Your task to perform on an android device: Show me the alarms in the clock app Image 0: 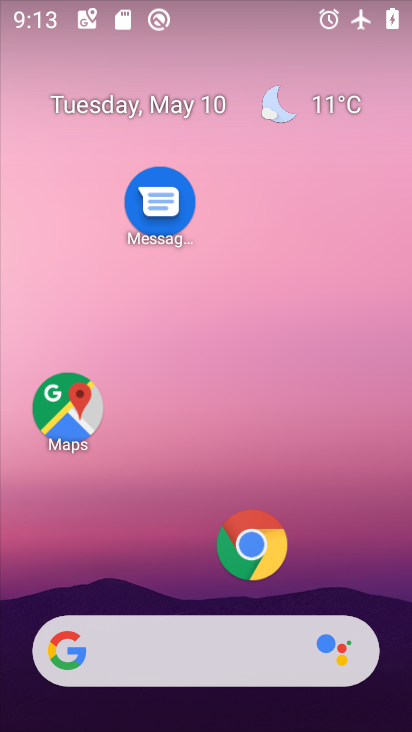
Step 0: drag from (192, 582) to (265, 71)
Your task to perform on an android device: Show me the alarms in the clock app Image 1: 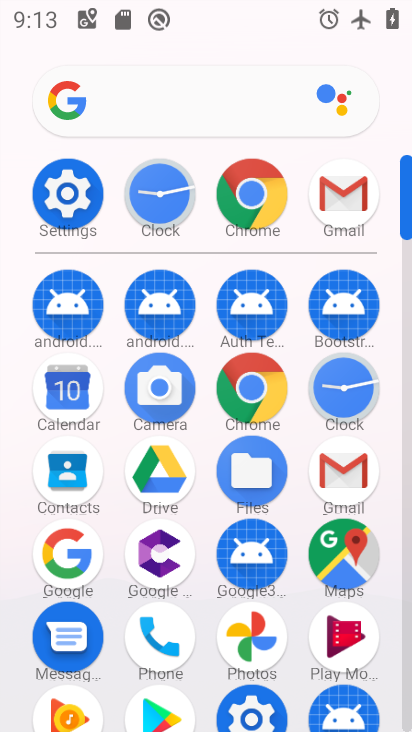
Step 1: click (342, 379)
Your task to perform on an android device: Show me the alarms in the clock app Image 2: 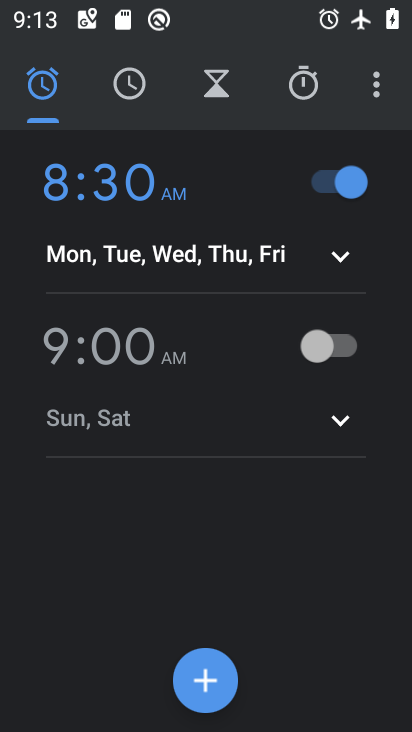
Step 2: task complete